Your task to perform on an android device: Go to Android settings Image 0: 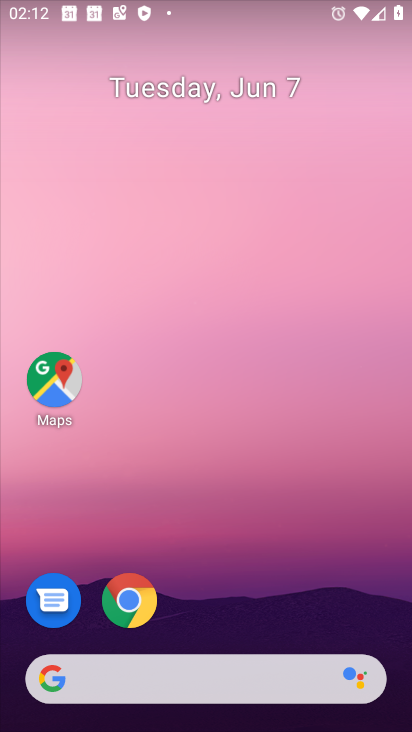
Step 0: drag from (248, 677) to (251, 133)
Your task to perform on an android device: Go to Android settings Image 1: 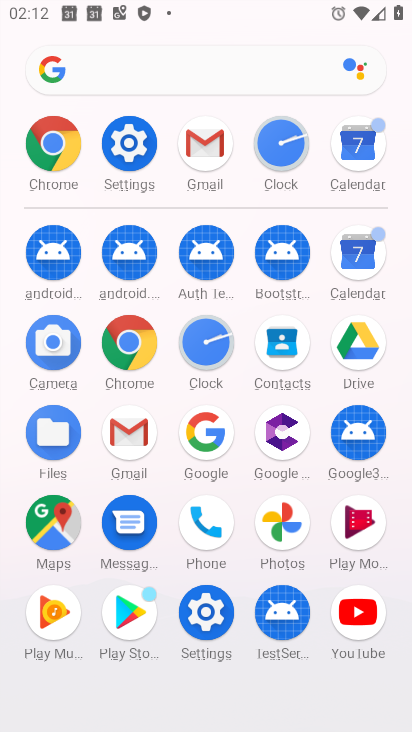
Step 1: click (117, 141)
Your task to perform on an android device: Go to Android settings Image 2: 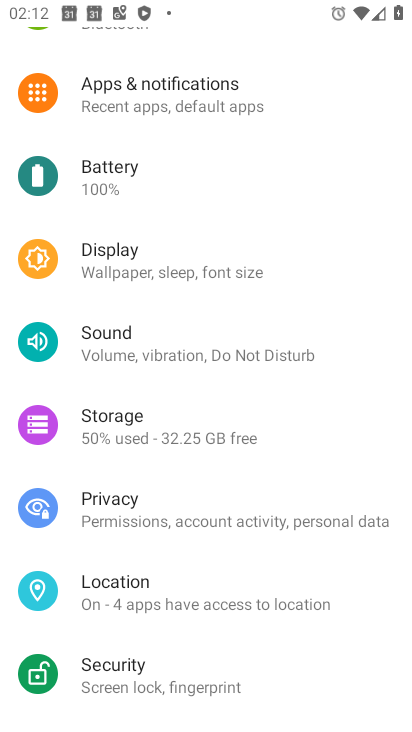
Step 2: task complete